Your task to perform on an android device: toggle data saver in the chrome app Image 0: 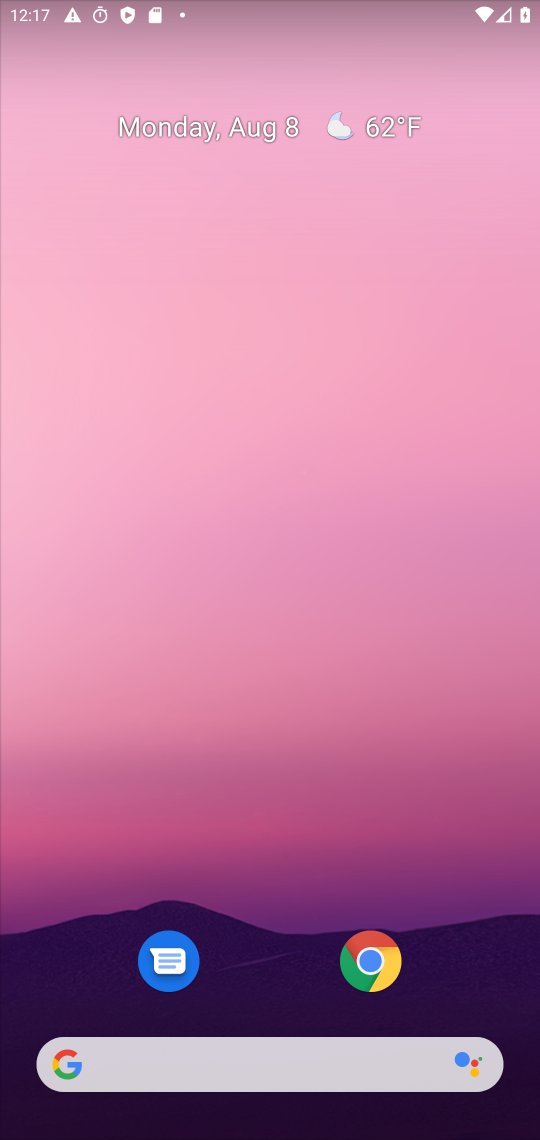
Step 0: drag from (262, 1076) to (45, 122)
Your task to perform on an android device: toggle data saver in the chrome app Image 1: 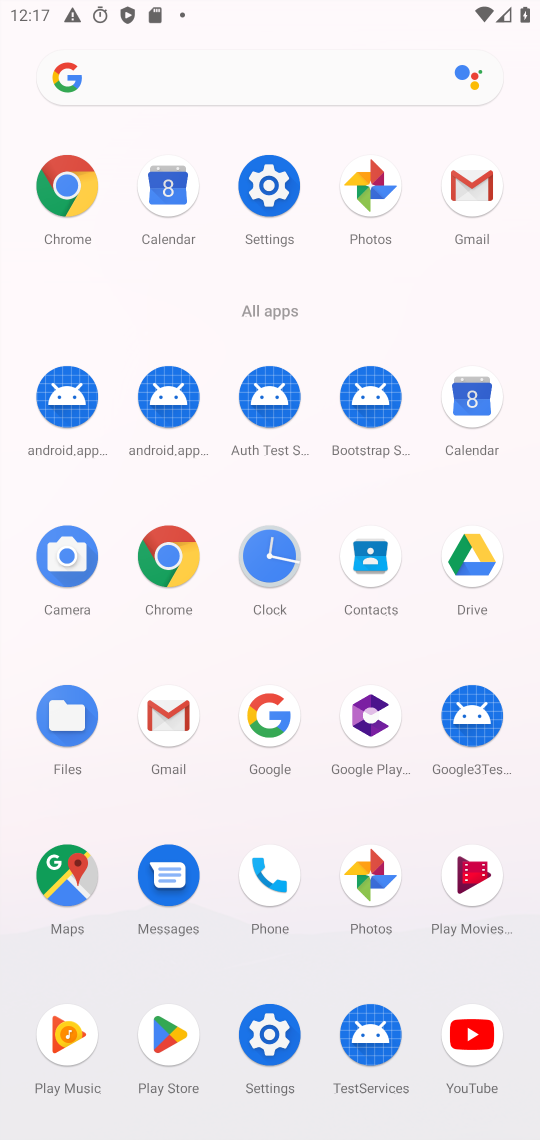
Step 1: drag from (418, 278) to (496, 454)
Your task to perform on an android device: toggle data saver in the chrome app Image 2: 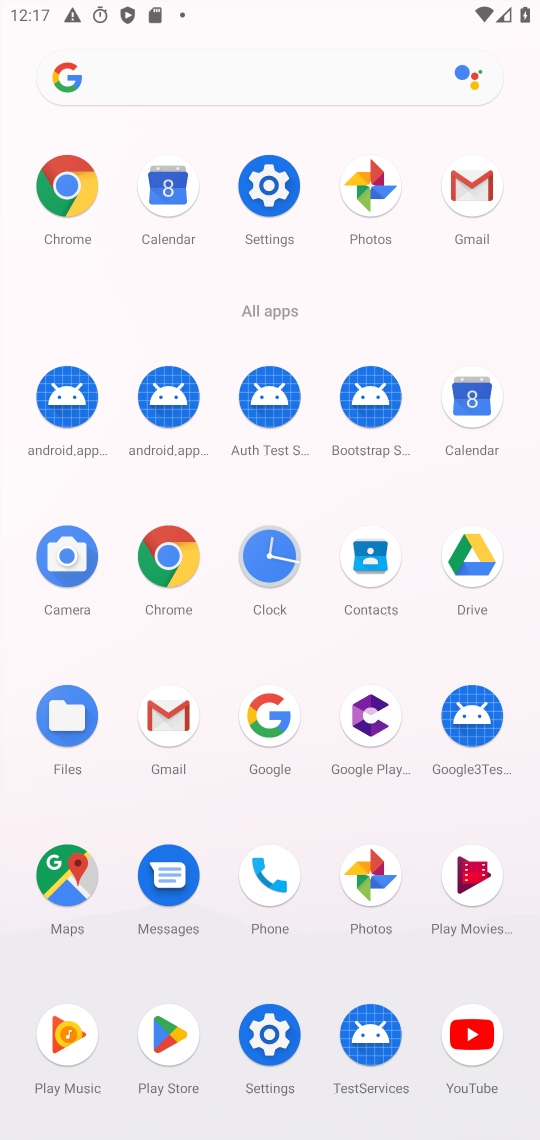
Step 2: click (168, 549)
Your task to perform on an android device: toggle data saver in the chrome app Image 3: 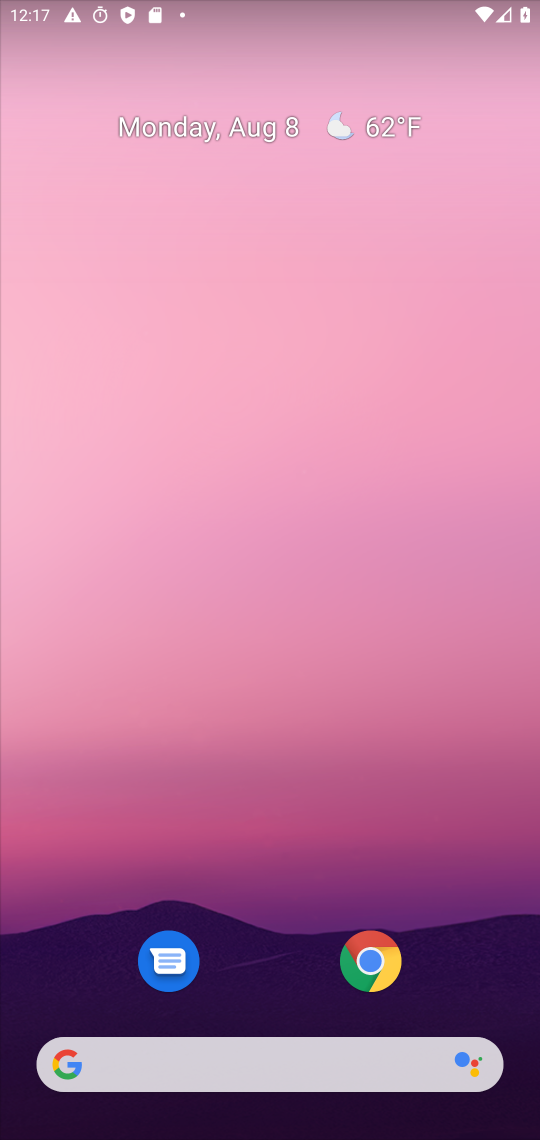
Step 3: drag from (344, 1066) to (233, 9)
Your task to perform on an android device: toggle data saver in the chrome app Image 4: 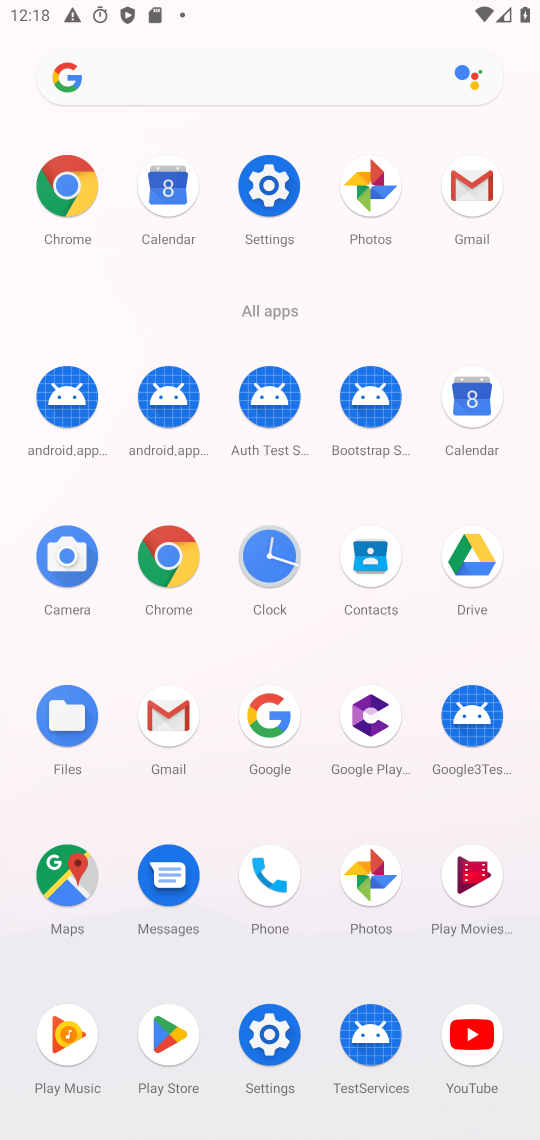
Step 4: click (172, 557)
Your task to perform on an android device: toggle data saver in the chrome app Image 5: 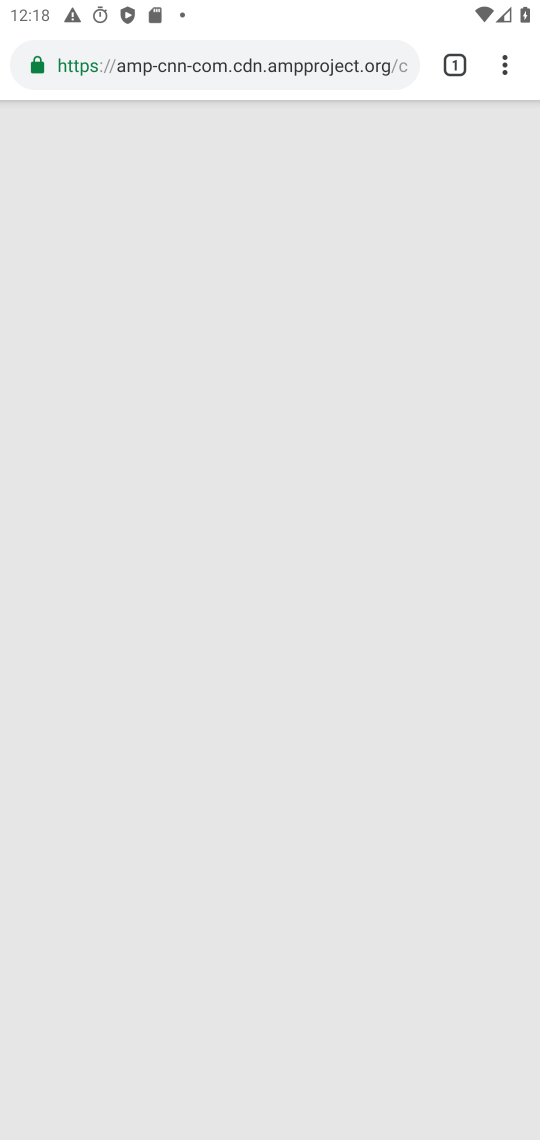
Step 5: click (508, 65)
Your task to perform on an android device: toggle data saver in the chrome app Image 6: 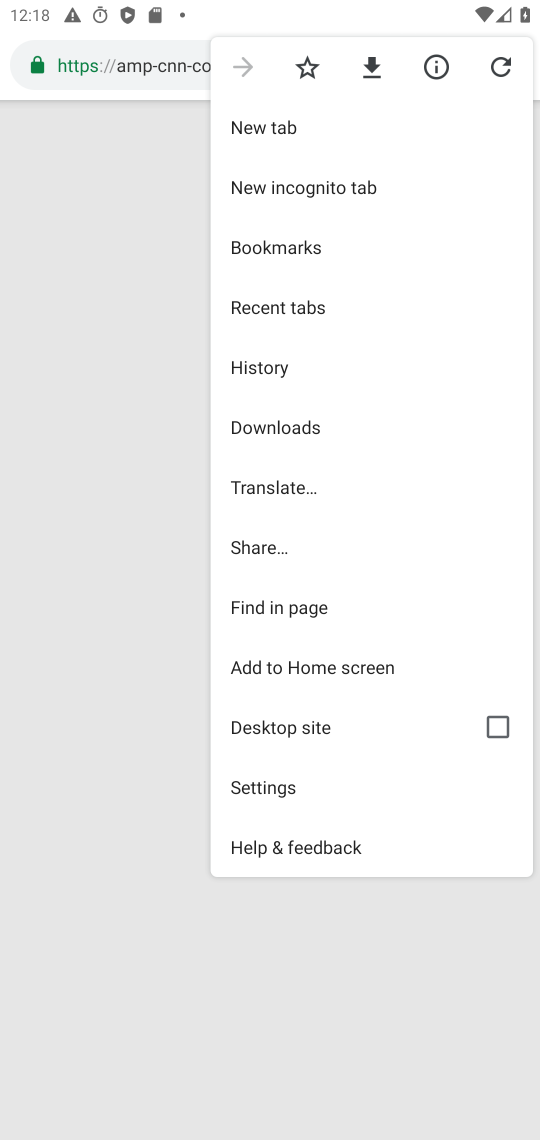
Step 6: click (336, 798)
Your task to perform on an android device: toggle data saver in the chrome app Image 7: 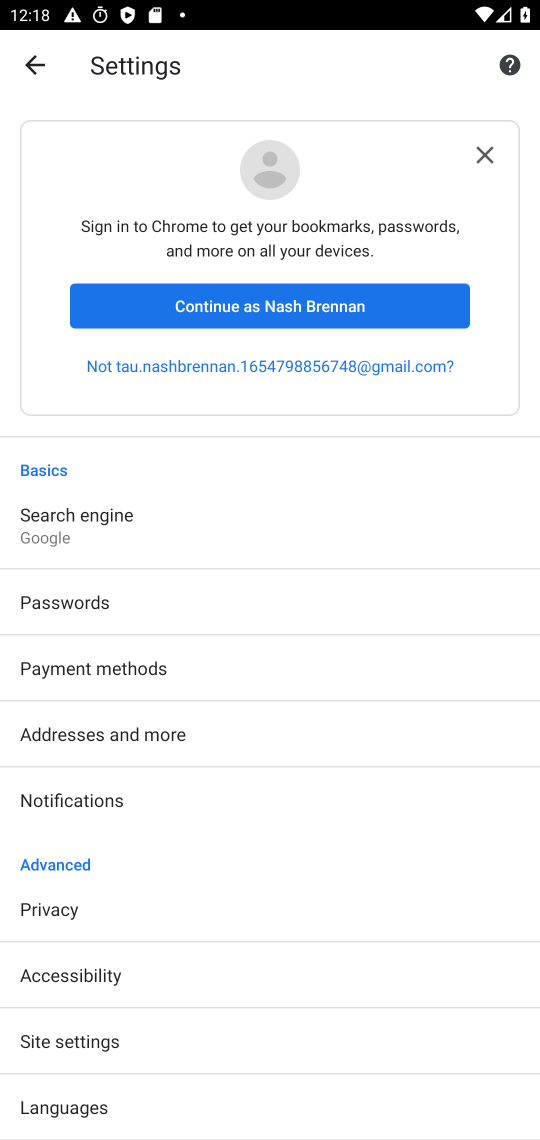
Step 7: drag from (331, 875) to (213, 17)
Your task to perform on an android device: toggle data saver in the chrome app Image 8: 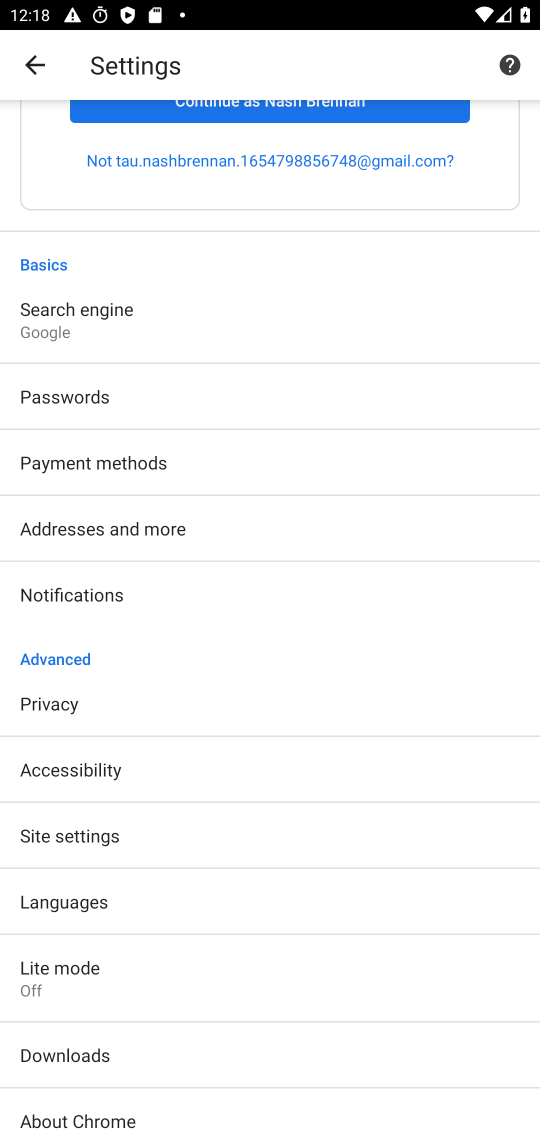
Step 8: click (136, 965)
Your task to perform on an android device: toggle data saver in the chrome app Image 9: 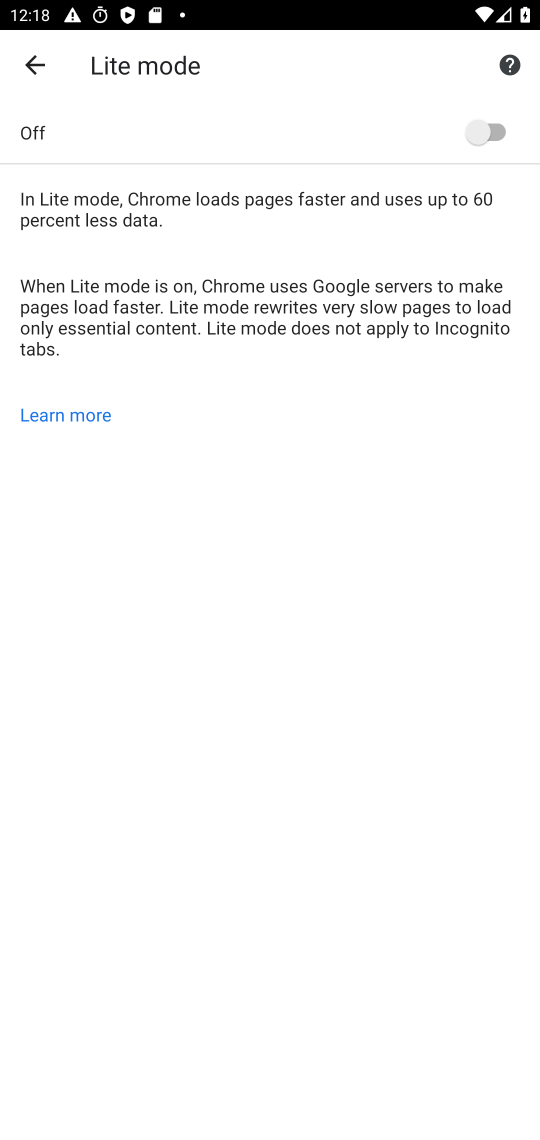
Step 9: click (496, 133)
Your task to perform on an android device: toggle data saver in the chrome app Image 10: 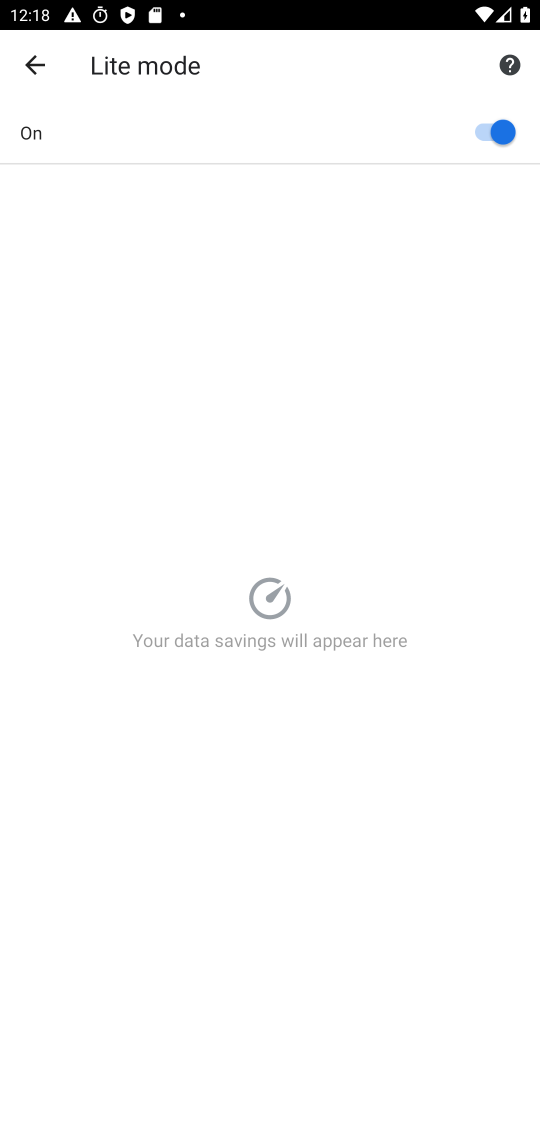
Step 10: task complete